Your task to perform on an android device: Go to calendar. Show me events next week Image 0: 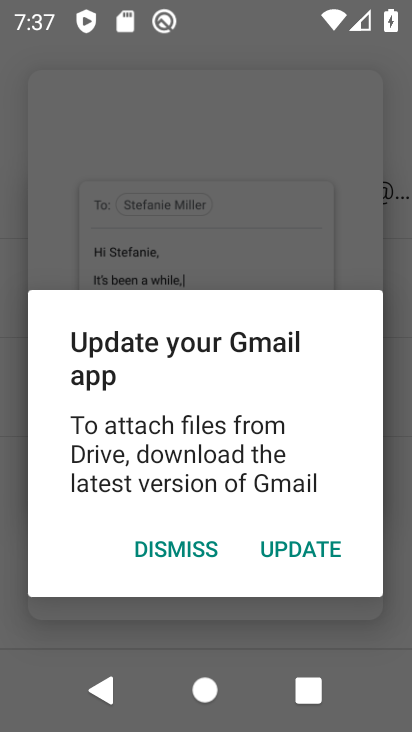
Step 0: press back button
Your task to perform on an android device: Go to calendar. Show me events next week Image 1: 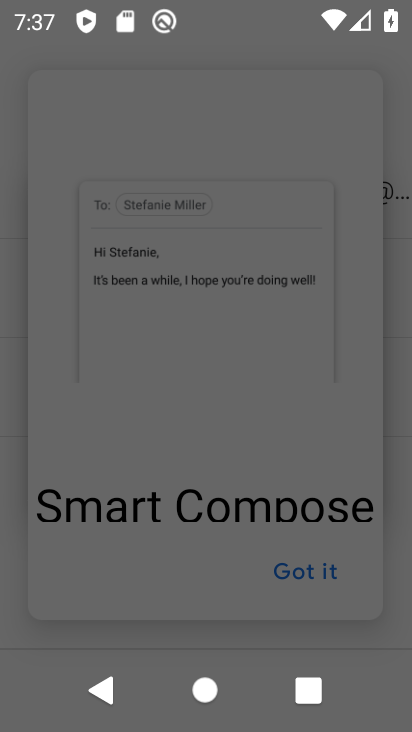
Step 1: press home button
Your task to perform on an android device: Go to calendar. Show me events next week Image 2: 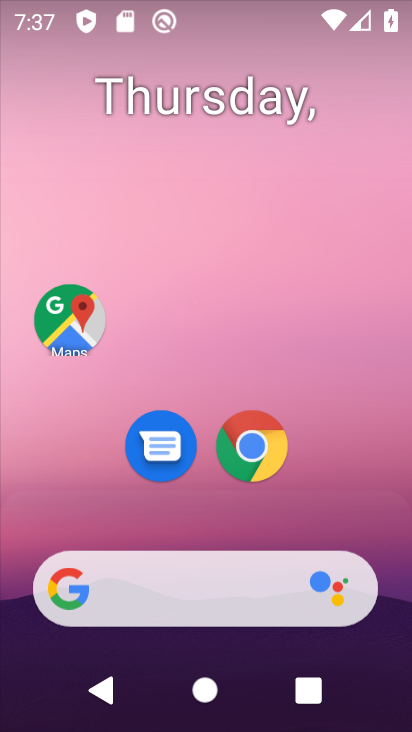
Step 2: drag from (83, 636) to (52, 18)
Your task to perform on an android device: Go to calendar. Show me events next week Image 3: 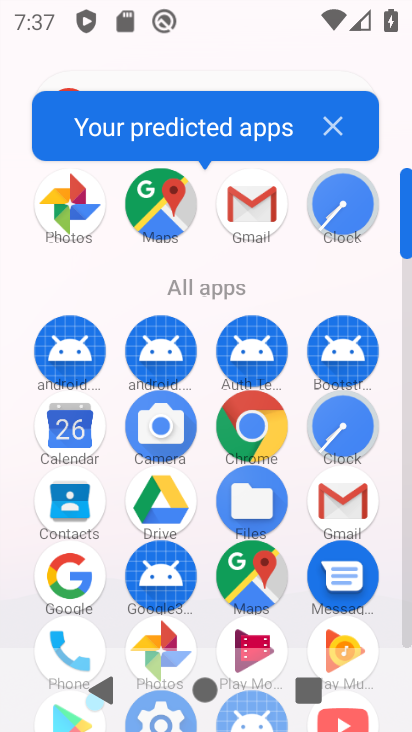
Step 3: drag from (197, 554) to (198, 208)
Your task to perform on an android device: Go to calendar. Show me events next week Image 4: 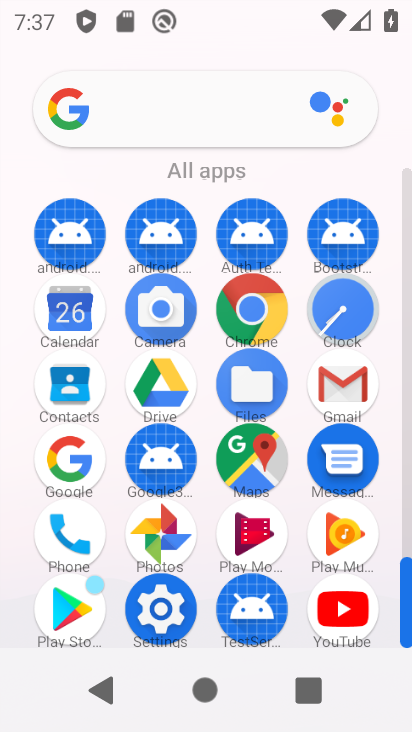
Step 4: click (89, 284)
Your task to perform on an android device: Go to calendar. Show me events next week Image 5: 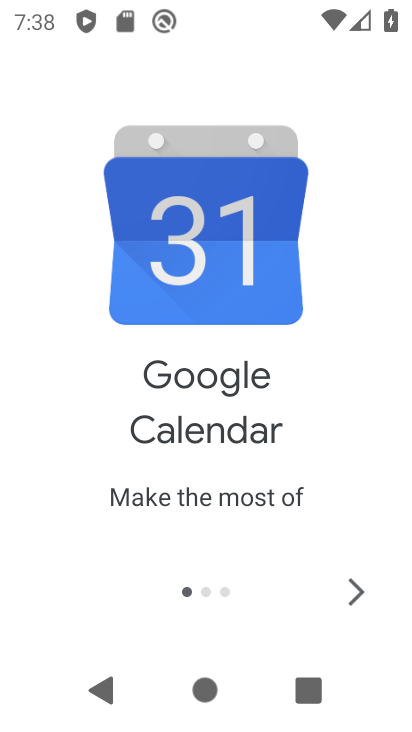
Step 5: click (342, 594)
Your task to perform on an android device: Go to calendar. Show me events next week Image 6: 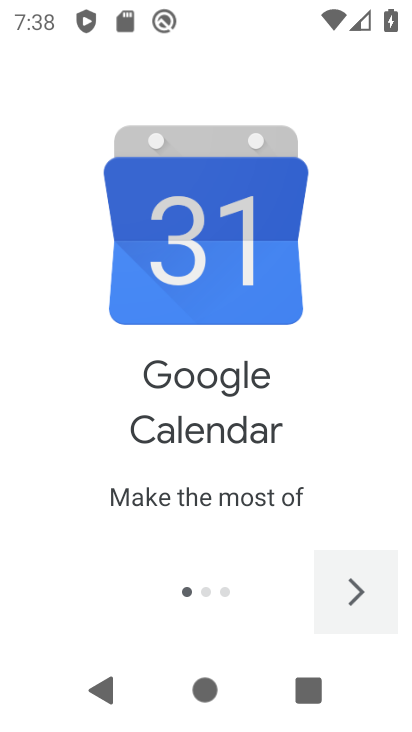
Step 6: click (342, 594)
Your task to perform on an android device: Go to calendar. Show me events next week Image 7: 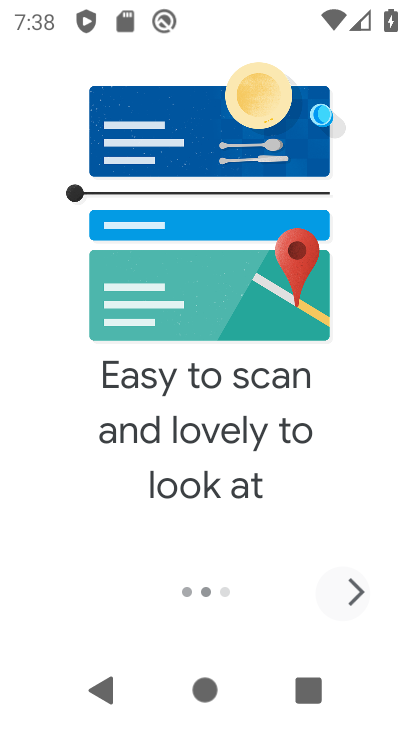
Step 7: click (342, 594)
Your task to perform on an android device: Go to calendar. Show me events next week Image 8: 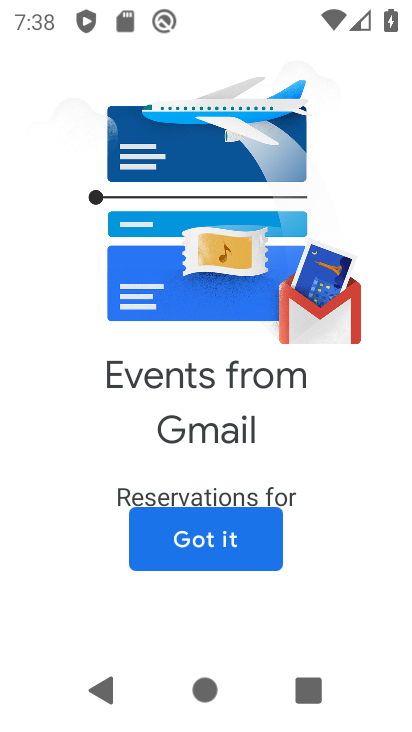
Step 8: click (342, 594)
Your task to perform on an android device: Go to calendar. Show me events next week Image 9: 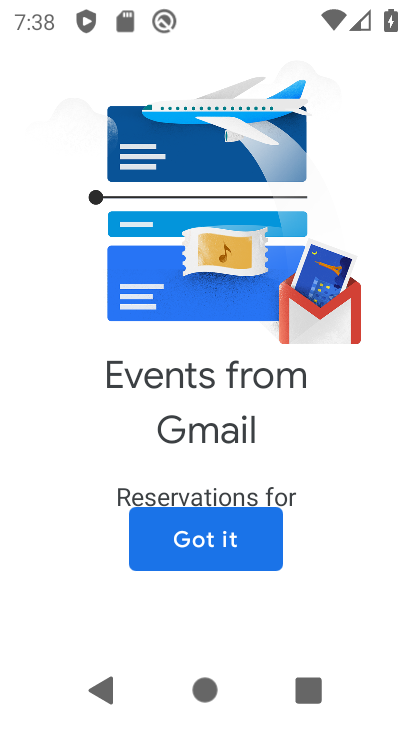
Step 9: click (263, 543)
Your task to perform on an android device: Go to calendar. Show me events next week Image 10: 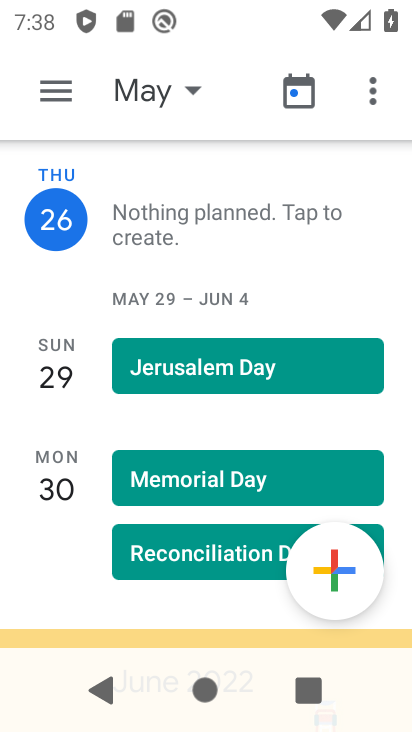
Step 10: click (57, 88)
Your task to perform on an android device: Go to calendar. Show me events next week Image 11: 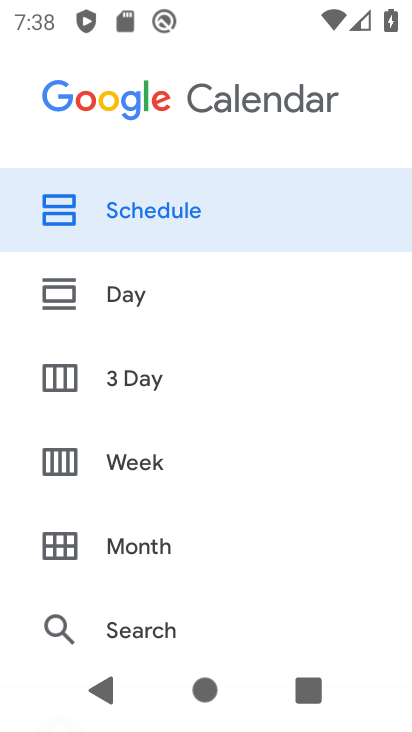
Step 11: click (201, 460)
Your task to perform on an android device: Go to calendar. Show me events next week Image 12: 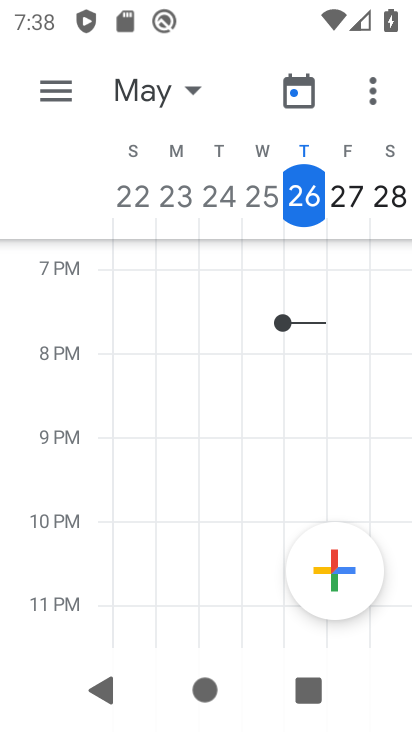
Step 12: task complete